Your task to perform on an android device: Open my contact list Image 0: 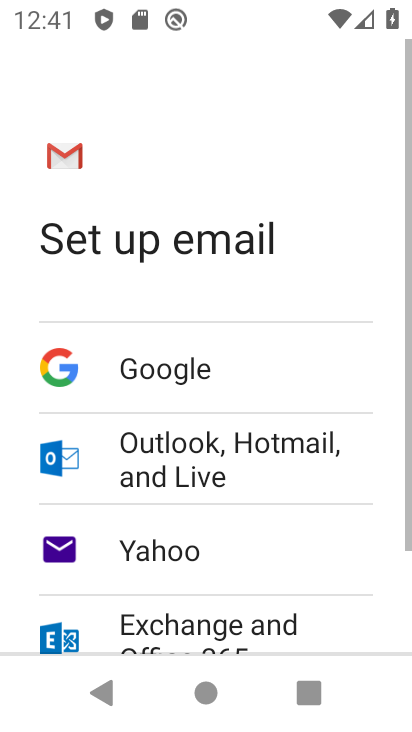
Step 0: press home button
Your task to perform on an android device: Open my contact list Image 1: 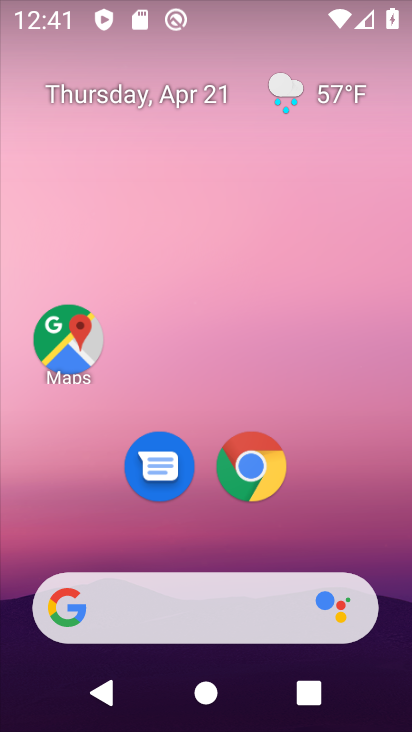
Step 1: drag from (325, 455) to (404, 39)
Your task to perform on an android device: Open my contact list Image 2: 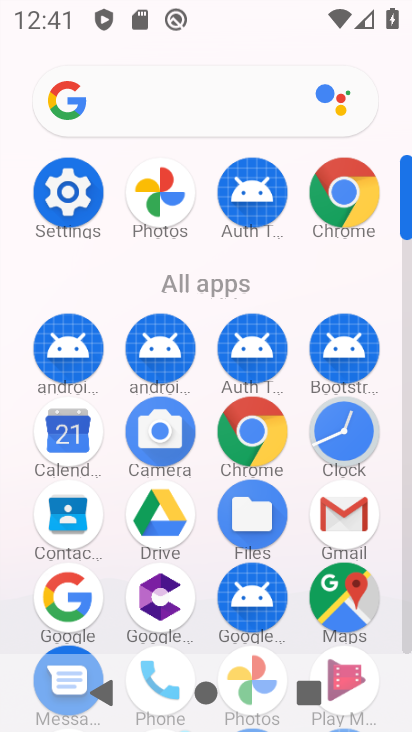
Step 2: click (42, 448)
Your task to perform on an android device: Open my contact list Image 3: 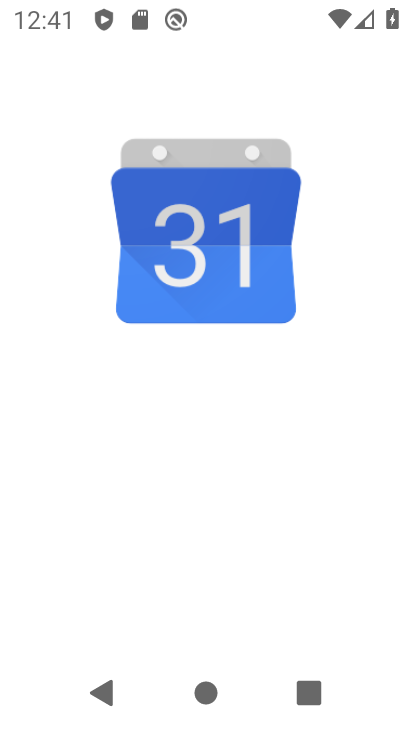
Step 3: click (62, 433)
Your task to perform on an android device: Open my contact list Image 4: 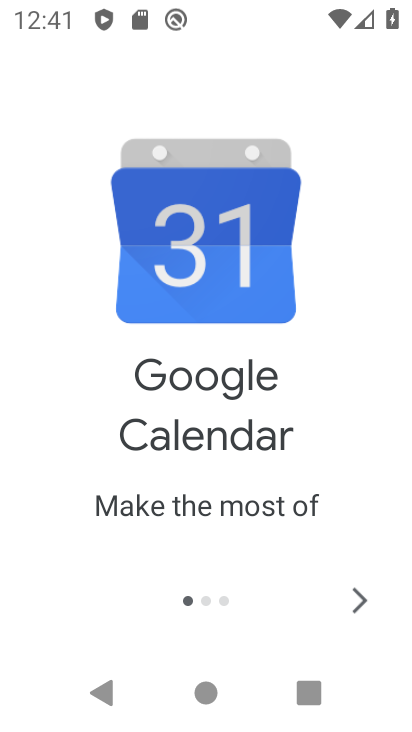
Step 4: click (367, 589)
Your task to perform on an android device: Open my contact list Image 5: 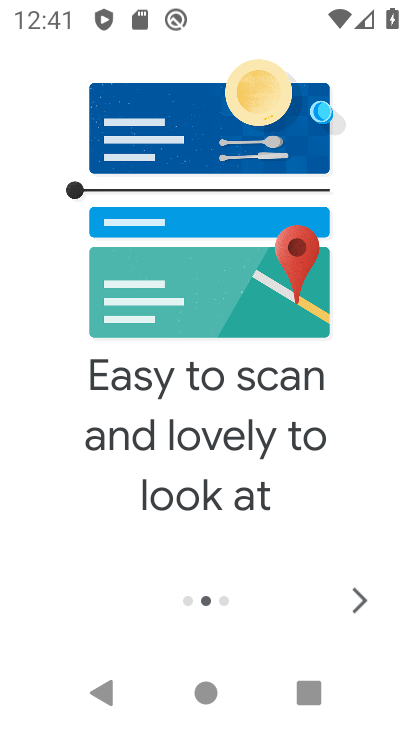
Step 5: click (369, 586)
Your task to perform on an android device: Open my contact list Image 6: 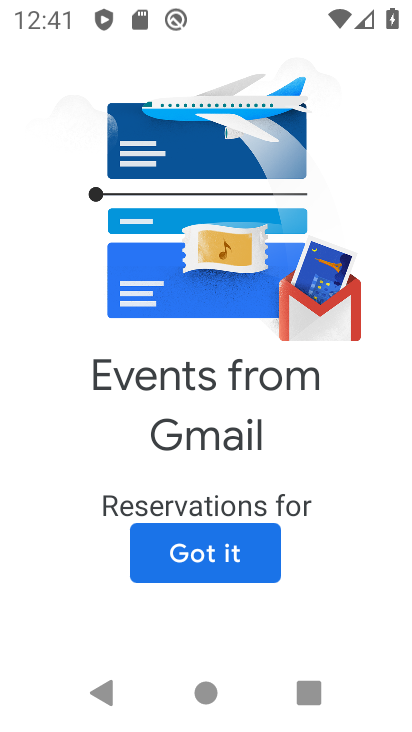
Step 6: click (248, 549)
Your task to perform on an android device: Open my contact list Image 7: 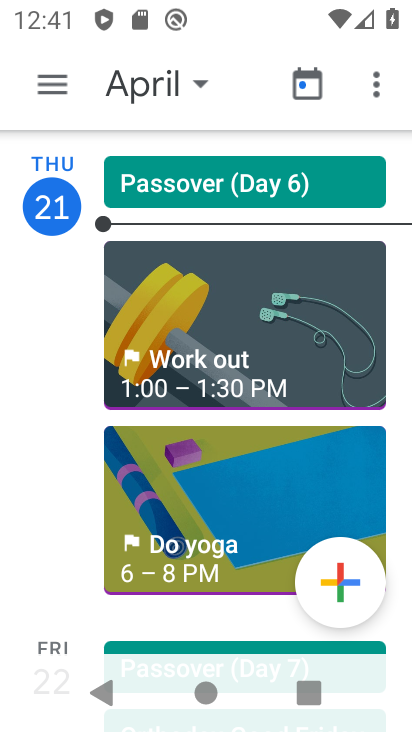
Step 7: click (55, 78)
Your task to perform on an android device: Open my contact list Image 8: 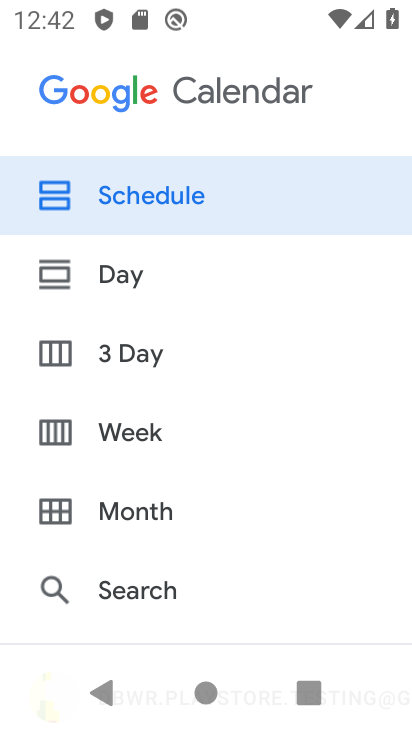
Step 8: click (95, 713)
Your task to perform on an android device: Open my contact list Image 9: 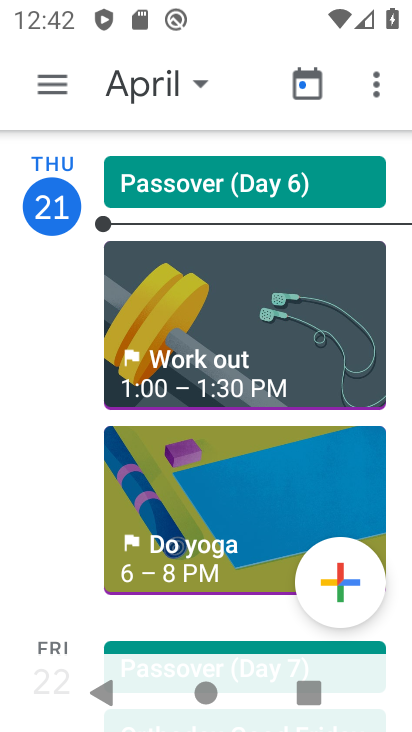
Step 9: press home button
Your task to perform on an android device: Open my contact list Image 10: 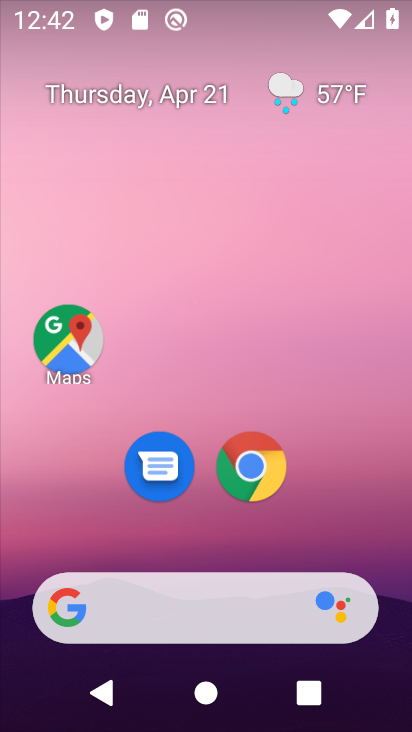
Step 10: drag from (321, 523) to (394, 62)
Your task to perform on an android device: Open my contact list Image 11: 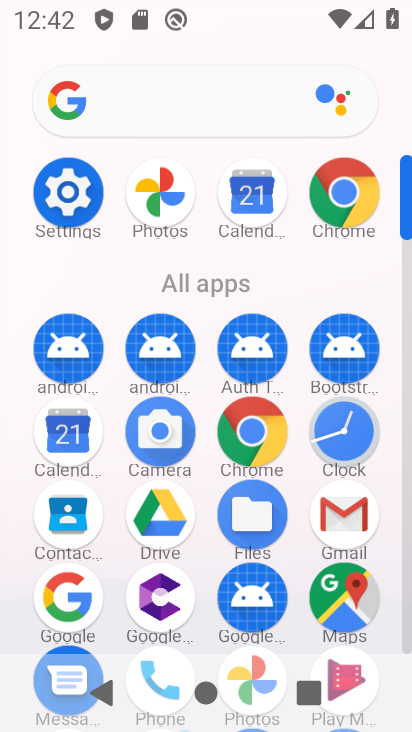
Step 11: click (77, 527)
Your task to perform on an android device: Open my contact list Image 12: 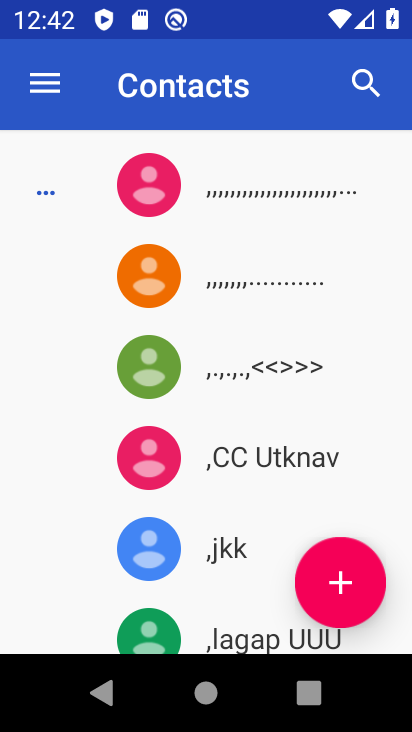
Step 12: task complete